Your task to perform on an android device: Open Google Maps and go to "Timeline" Image 0: 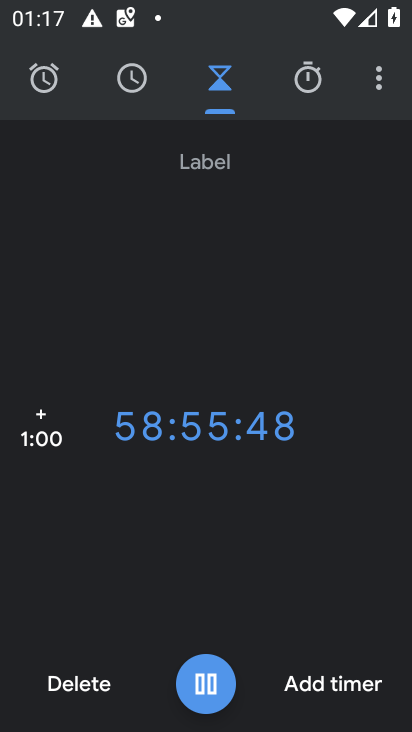
Step 0: press home button
Your task to perform on an android device: Open Google Maps and go to "Timeline" Image 1: 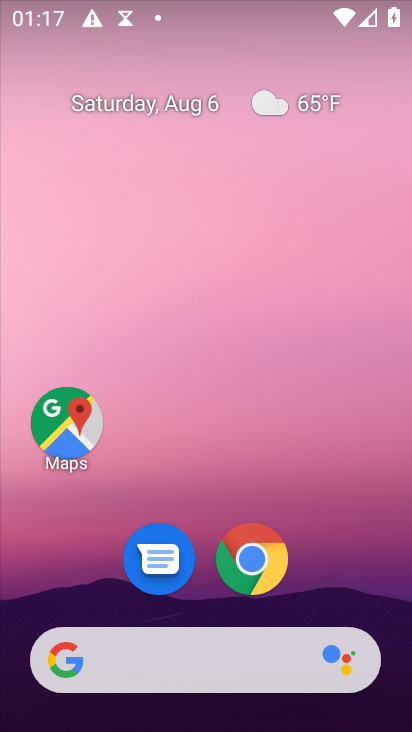
Step 1: click (56, 431)
Your task to perform on an android device: Open Google Maps and go to "Timeline" Image 2: 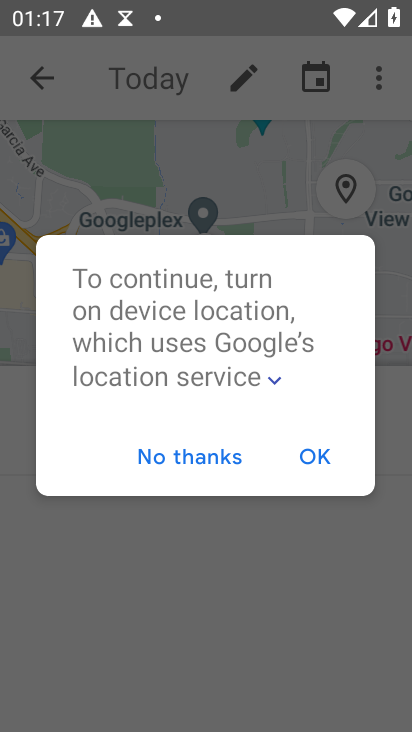
Step 2: click (312, 458)
Your task to perform on an android device: Open Google Maps and go to "Timeline" Image 3: 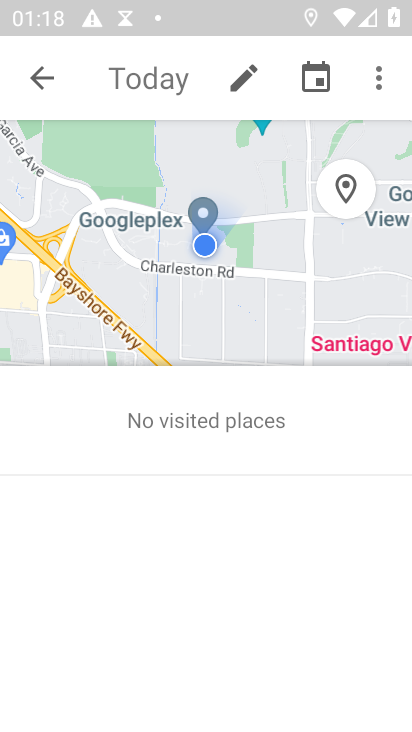
Step 3: task complete